Your task to perform on an android device: Go to Wikipedia Image 0: 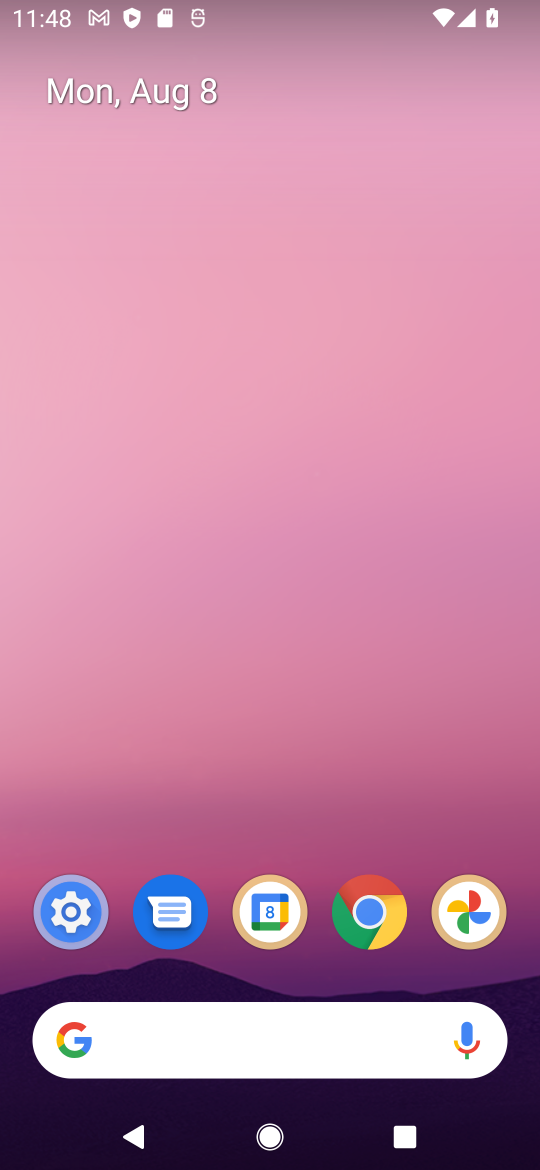
Step 0: click (384, 909)
Your task to perform on an android device: Go to Wikipedia Image 1: 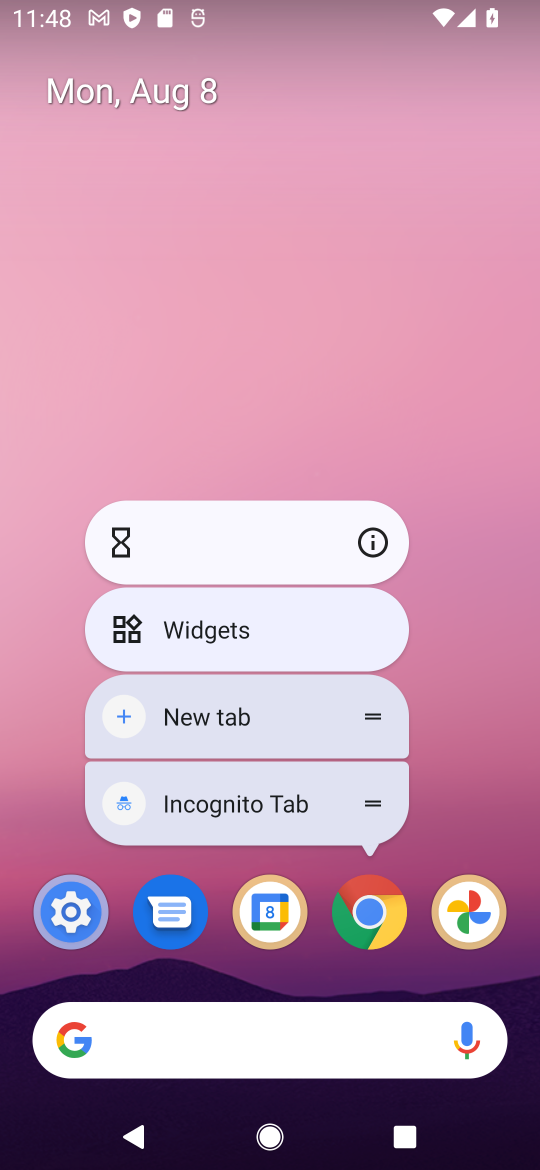
Step 1: click (359, 913)
Your task to perform on an android device: Go to Wikipedia Image 2: 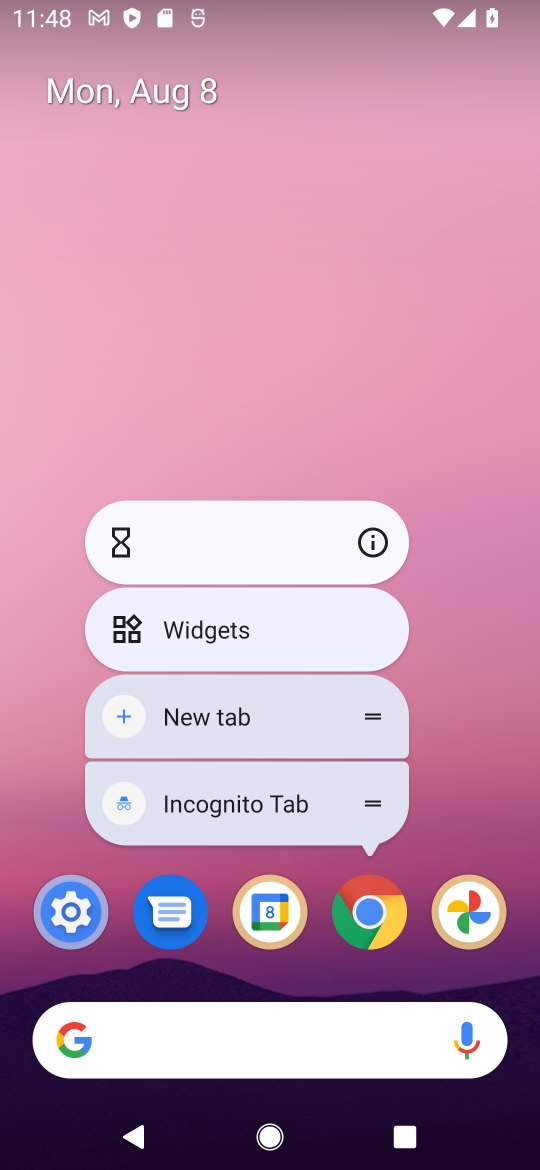
Step 2: click (365, 890)
Your task to perform on an android device: Go to Wikipedia Image 3: 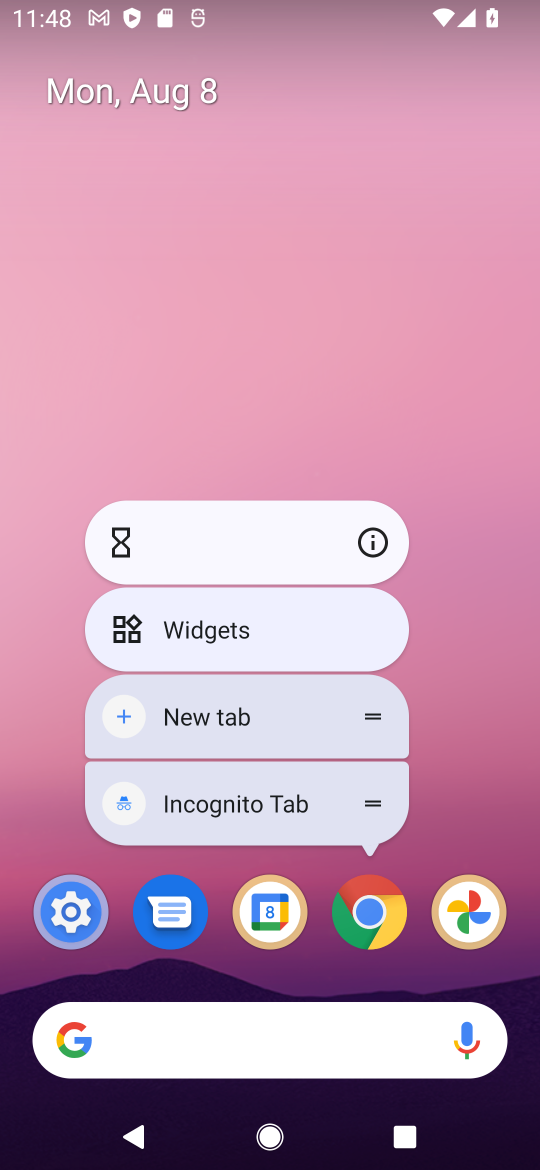
Step 3: click (370, 915)
Your task to perform on an android device: Go to Wikipedia Image 4: 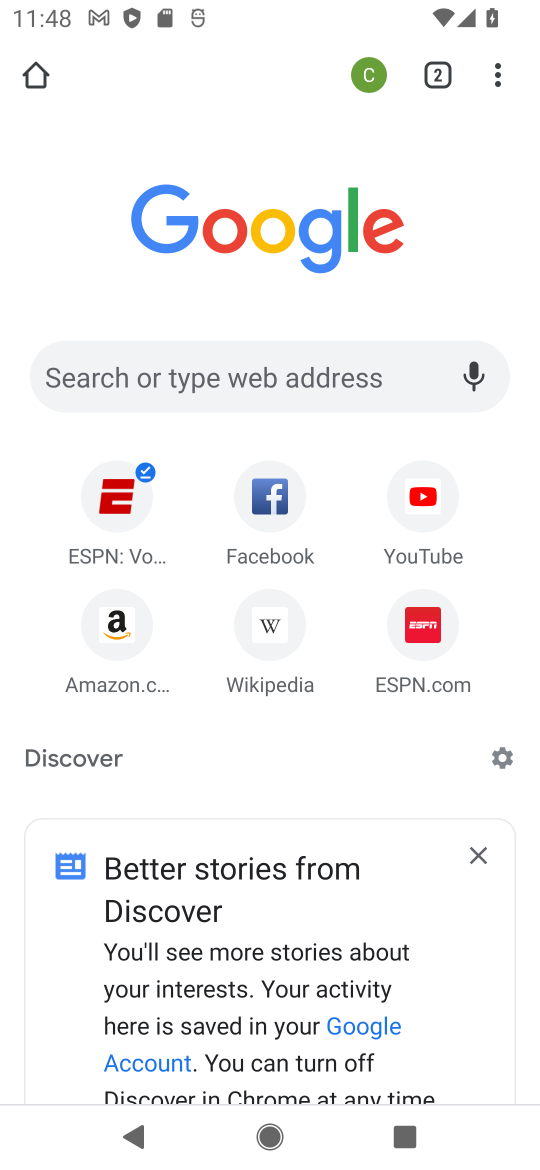
Step 4: click (273, 616)
Your task to perform on an android device: Go to Wikipedia Image 5: 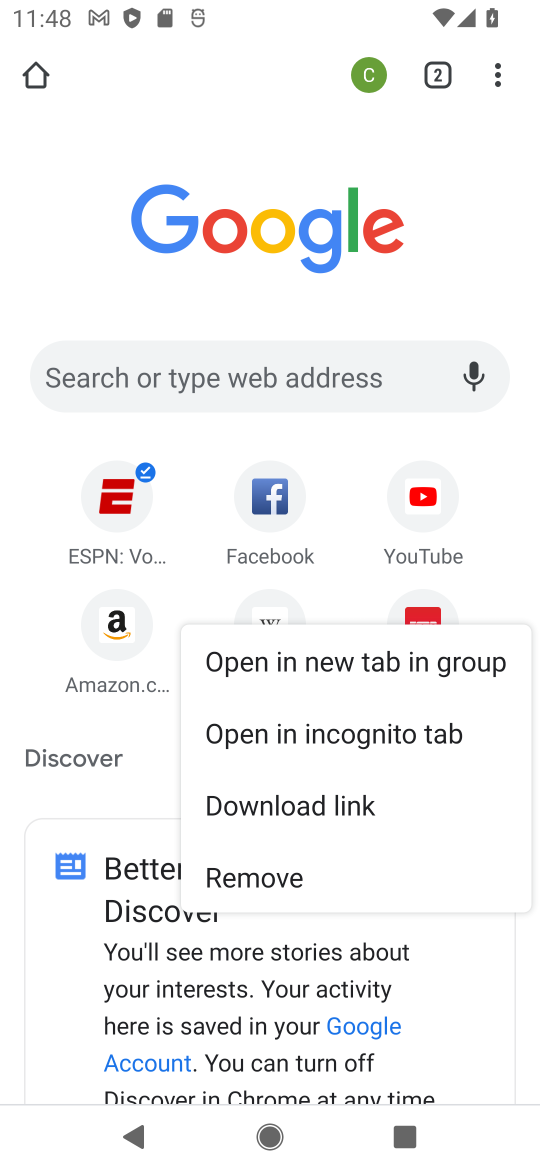
Step 5: click (29, 654)
Your task to perform on an android device: Go to Wikipedia Image 6: 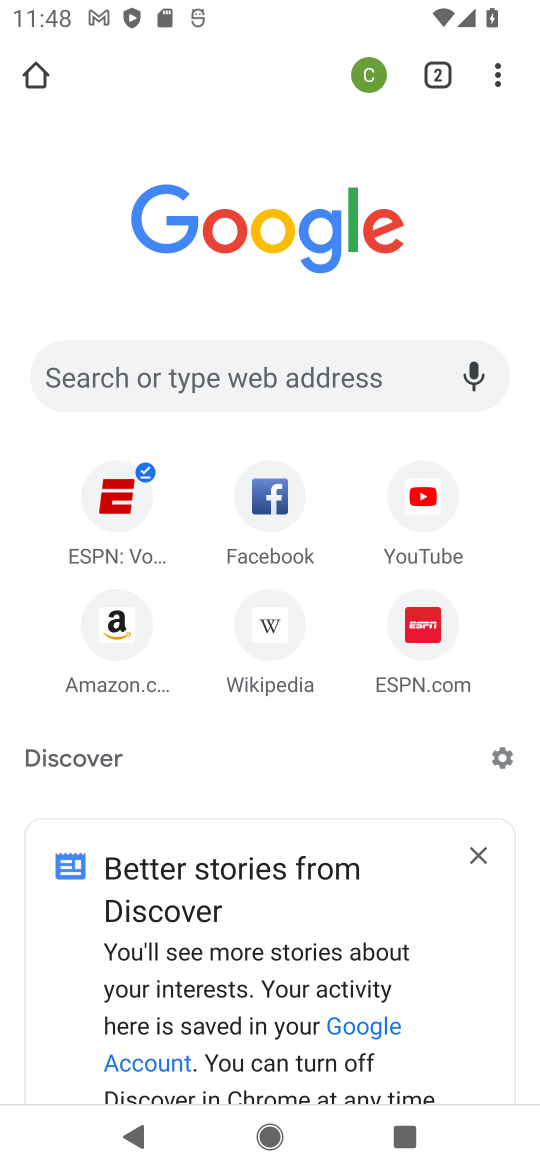
Step 6: click (254, 630)
Your task to perform on an android device: Go to Wikipedia Image 7: 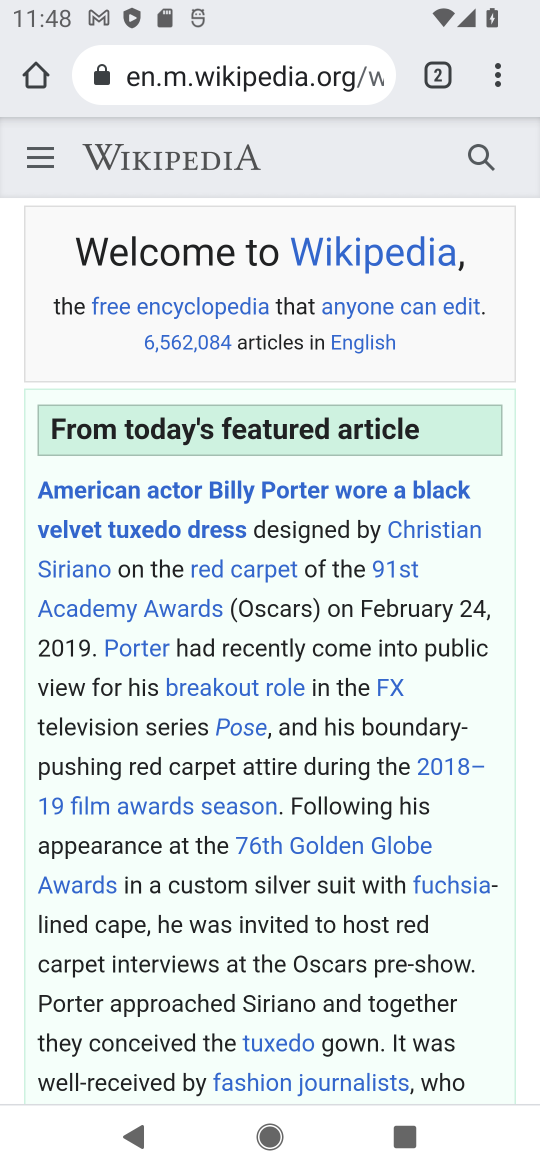
Step 7: task complete